Your task to perform on an android device: turn on notifications settings in the gmail app Image 0: 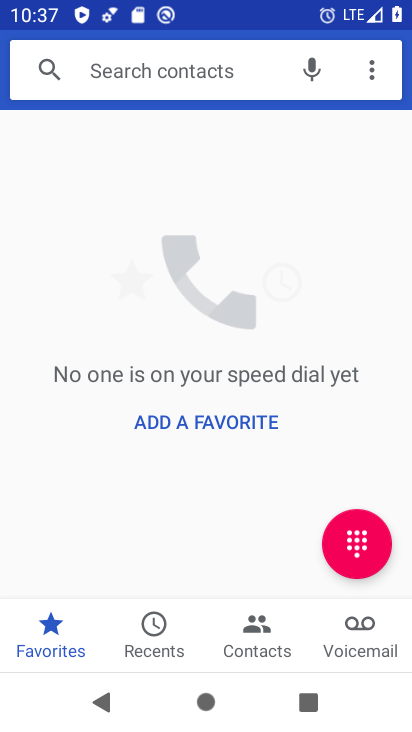
Step 0: press home button
Your task to perform on an android device: turn on notifications settings in the gmail app Image 1: 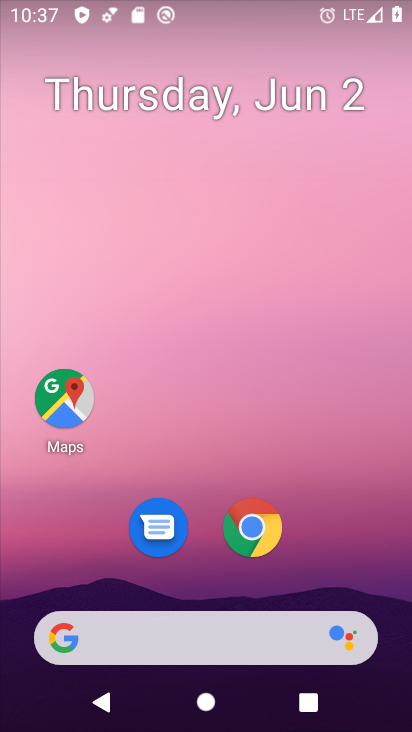
Step 1: drag from (212, 631) to (178, 68)
Your task to perform on an android device: turn on notifications settings in the gmail app Image 2: 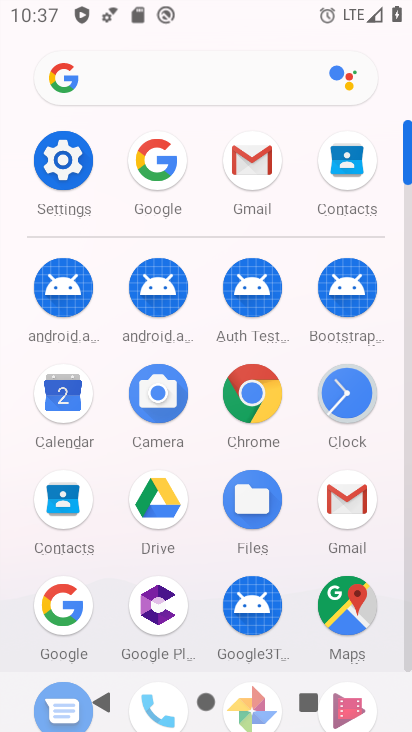
Step 2: click (343, 508)
Your task to perform on an android device: turn on notifications settings in the gmail app Image 3: 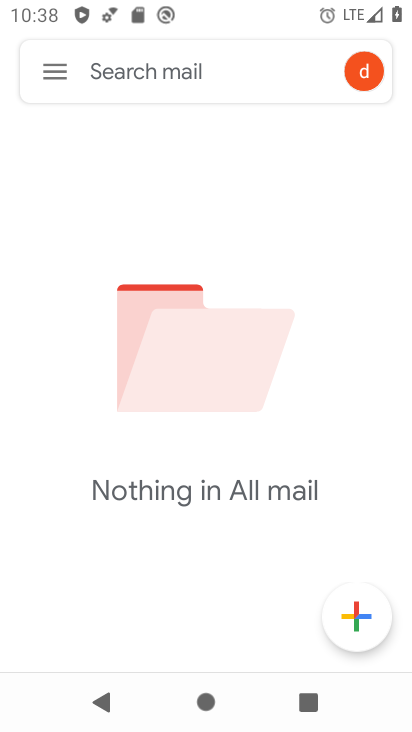
Step 3: click (46, 69)
Your task to perform on an android device: turn on notifications settings in the gmail app Image 4: 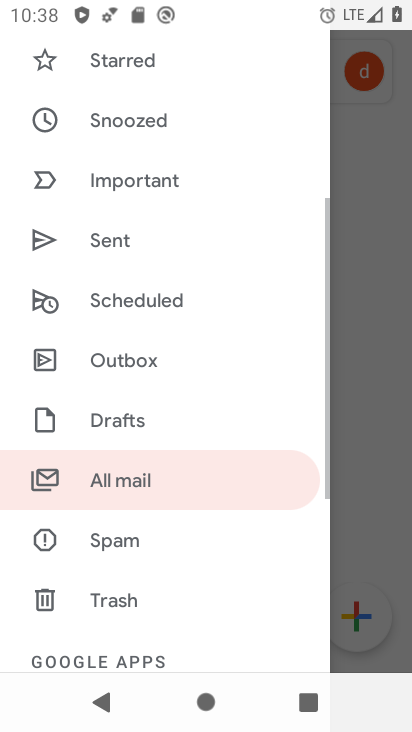
Step 4: drag from (189, 617) to (92, 4)
Your task to perform on an android device: turn on notifications settings in the gmail app Image 5: 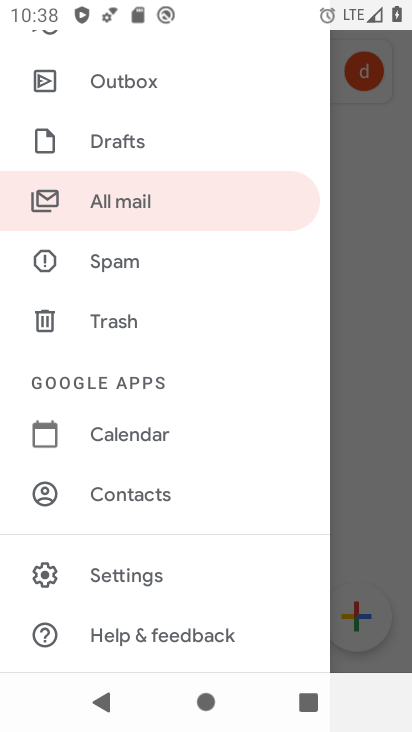
Step 5: click (138, 583)
Your task to perform on an android device: turn on notifications settings in the gmail app Image 6: 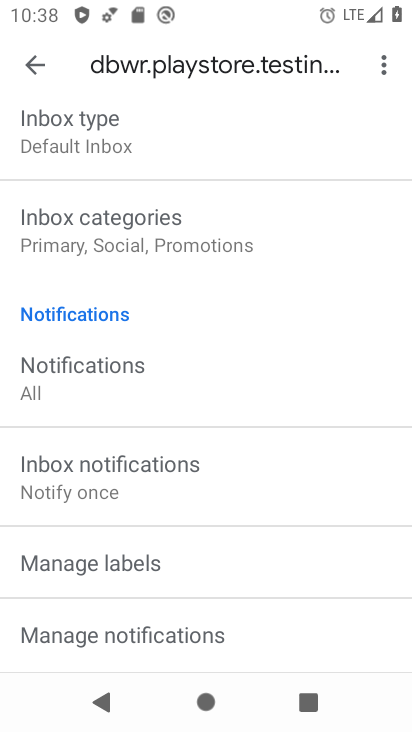
Step 6: drag from (178, 531) to (154, 80)
Your task to perform on an android device: turn on notifications settings in the gmail app Image 7: 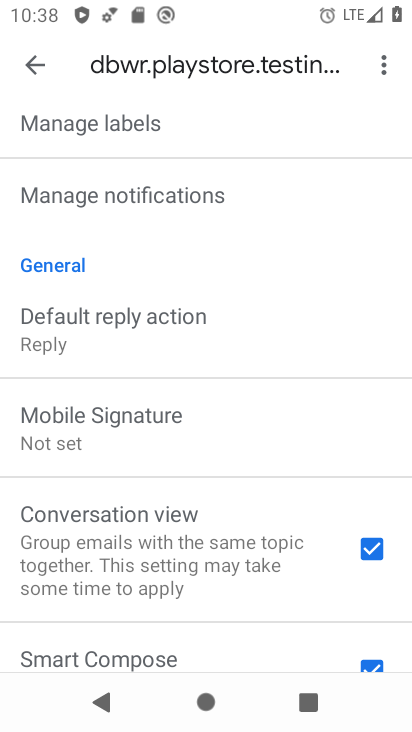
Step 7: click (127, 202)
Your task to perform on an android device: turn on notifications settings in the gmail app Image 8: 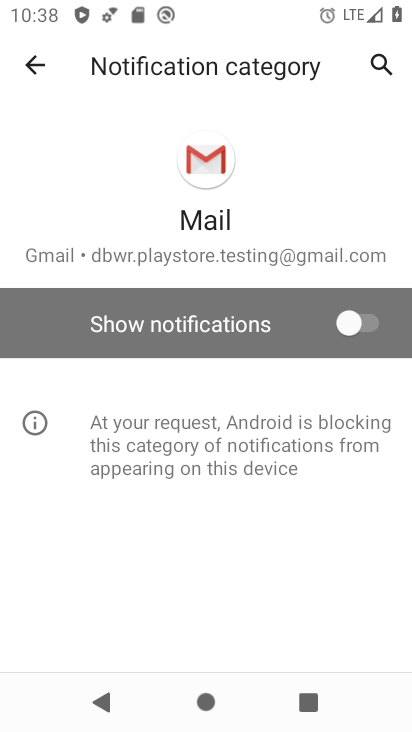
Step 8: click (357, 322)
Your task to perform on an android device: turn on notifications settings in the gmail app Image 9: 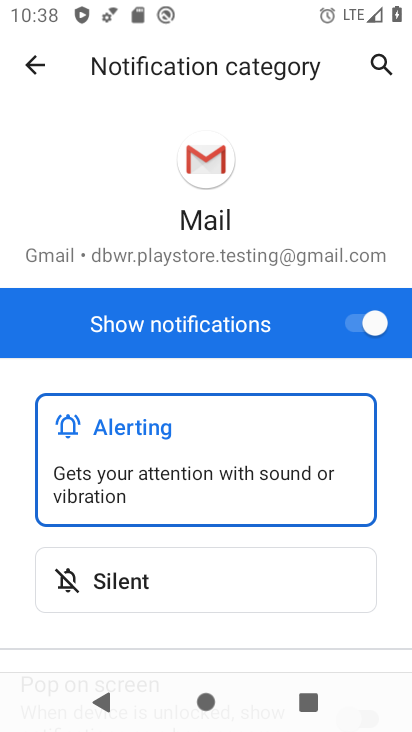
Step 9: task complete